Your task to perform on an android device: Go to Wikipedia Image 0: 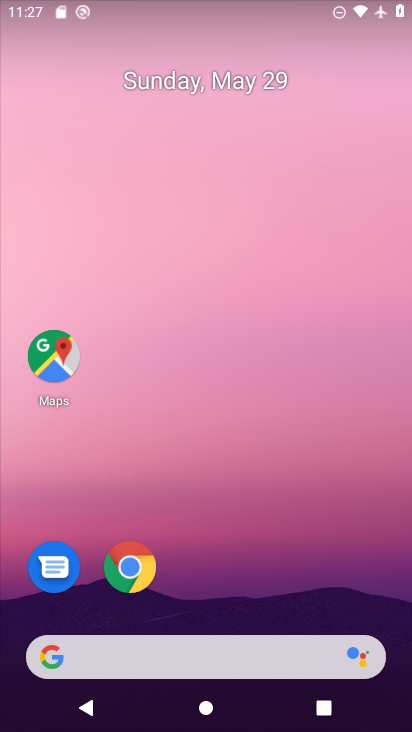
Step 0: click (133, 569)
Your task to perform on an android device: Go to Wikipedia Image 1: 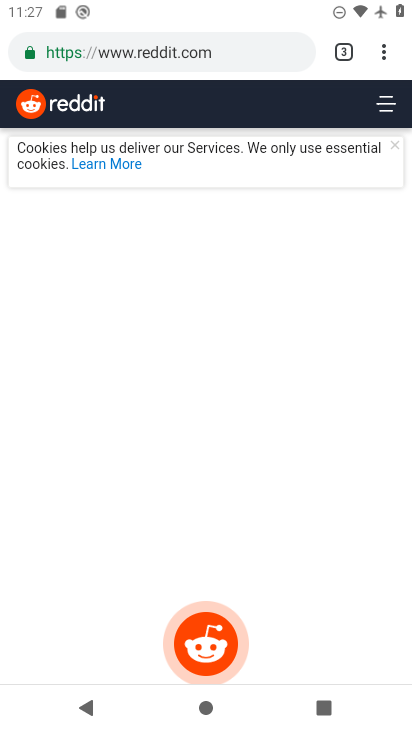
Step 1: click (215, 50)
Your task to perform on an android device: Go to Wikipedia Image 2: 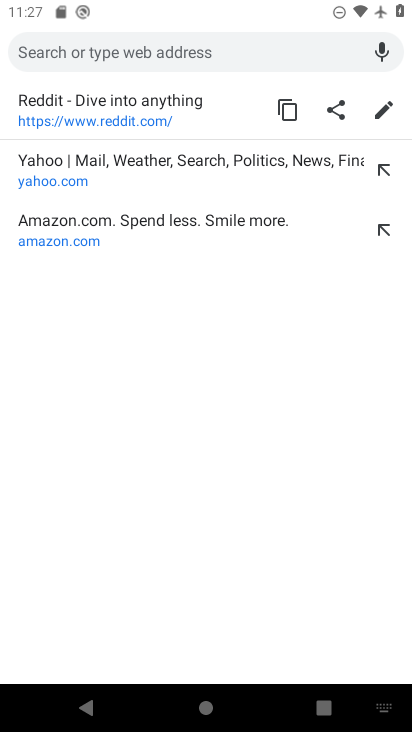
Step 2: type "wikipedia"
Your task to perform on an android device: Go to Wikipedia Image 3: 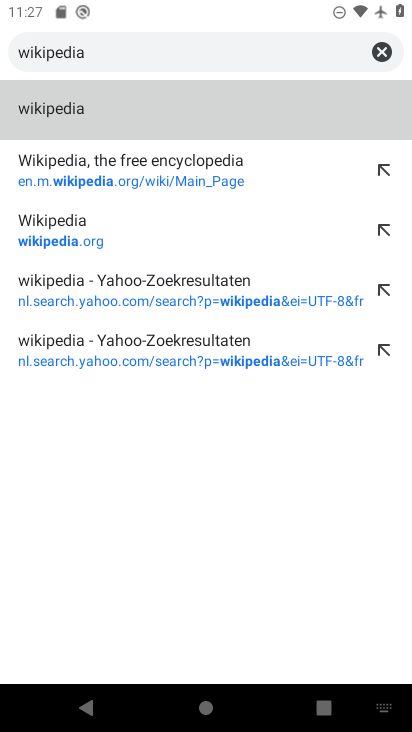
Step 3: click (72, 109)
Your task to perform on an android device: Go to Wikipedia Image 4: 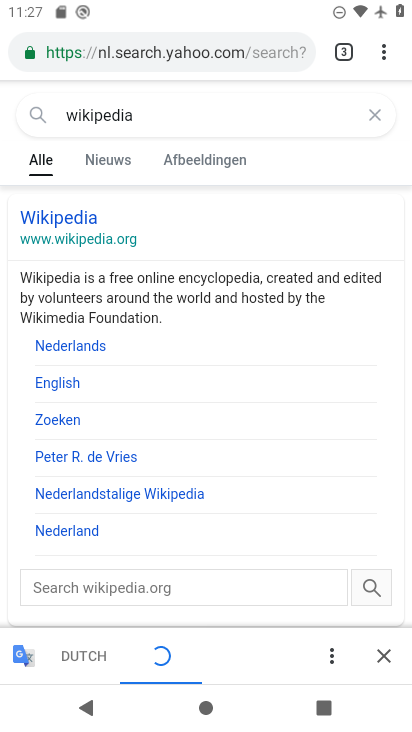
Step 4: click (65, 236)
Your task to perform on an android device: Go to Wikipedia Image 5: 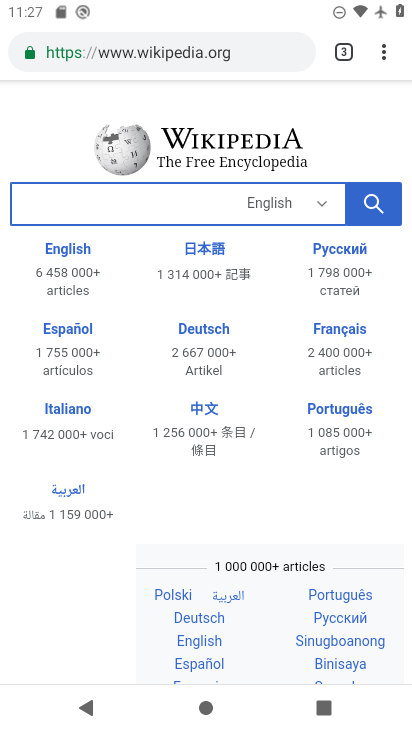
Step 5: task complete